Your task to perform on an android device: Set the phone to "Do not disturb". Image 0: 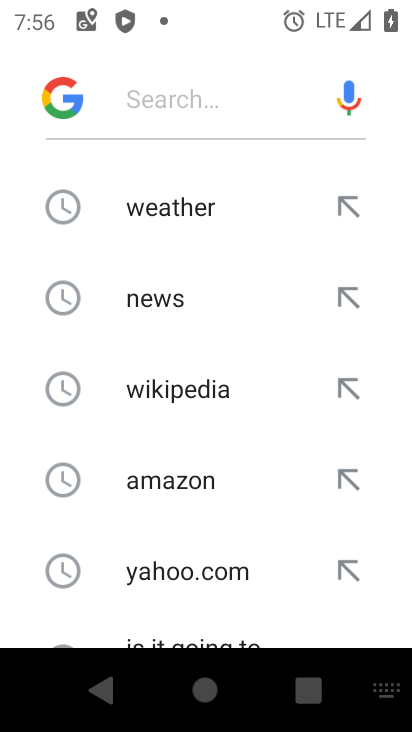
Step 0: press home button
Your task to perform on an android device: Set the phone to "Do not disturb". Image 1: 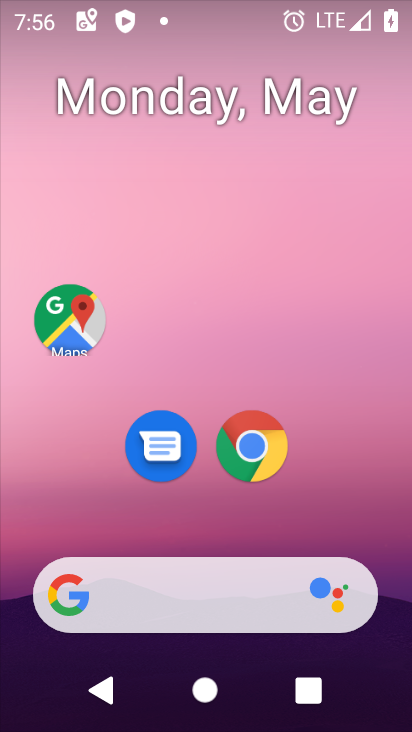
Step 1: drag from (333, 514) to (265, 108)
Your task to perform on an android device: Set the phone to "Do not disturb". Image 2: 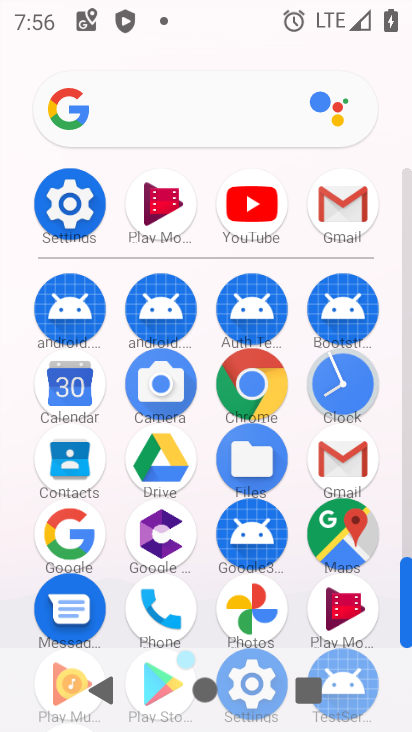
Step 2: click (74, 197)
Your task to perform on an android device: Set the phone to "Do not disturb". Image 3: 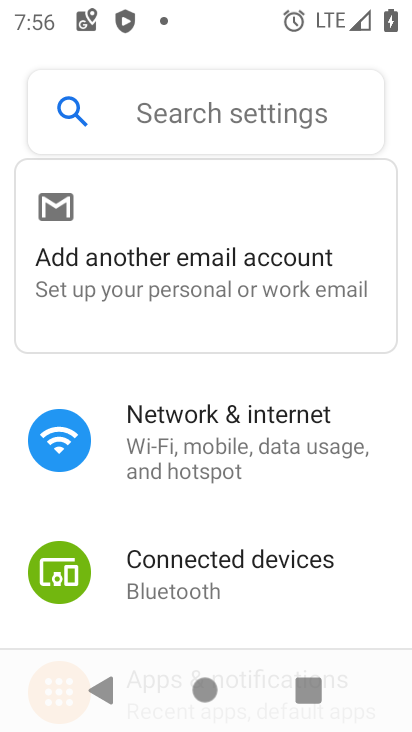
Step 3: drag from (219, 513) to (192, 157)
Your task to perform on an android device: Set the phone to "Do not disturb". Image 4: 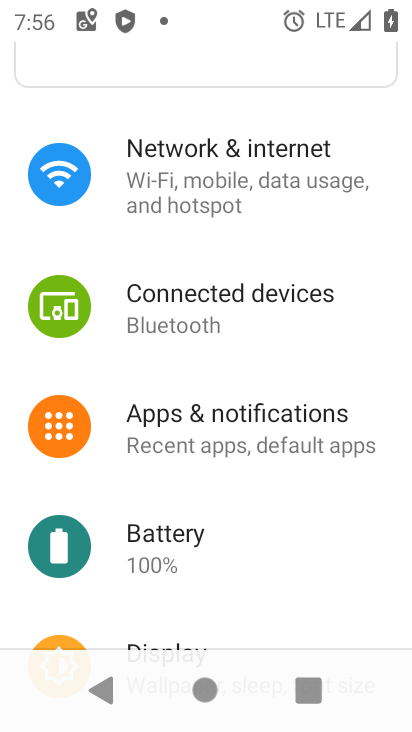
Step 4: drag from (237, 521) to (191, 263)
Your task to perform on an android device: Set the phone to "Do not disturb". Image 5: 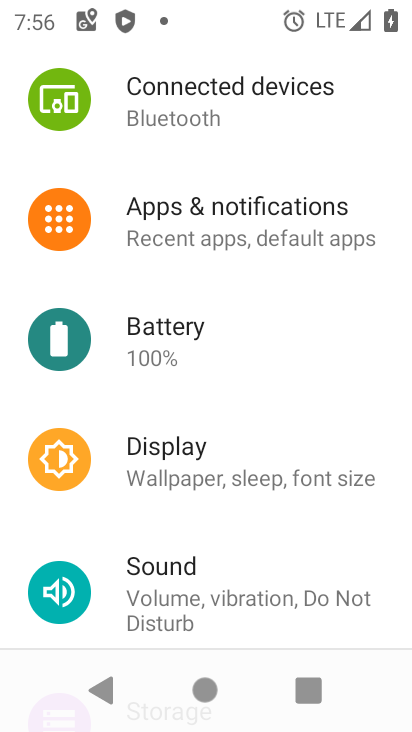
Step 5: click (164, 599)
Your task to perform on an android device: Set the phone to "Do not disturb". Image 6: 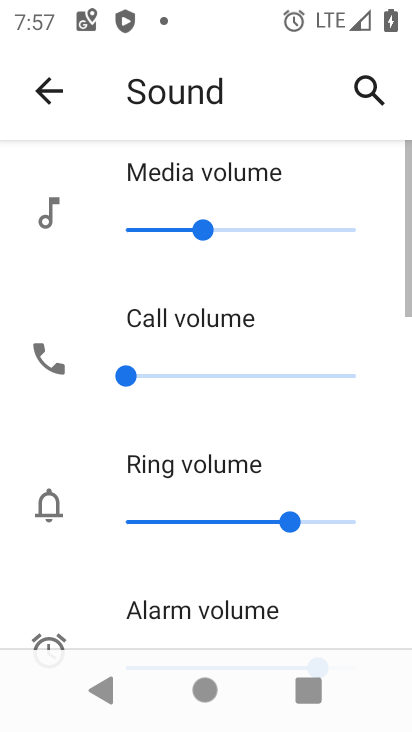
Step 6: drag from (236, 506) to (211, 272)
Your task to perform on an android device: Set the phone to "Do not disturb". Image 7: 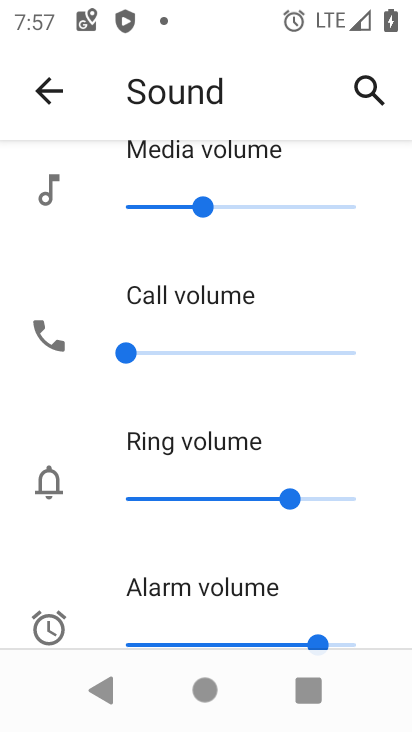
Step 7: drag from (322, 412) to (301, 144)
Your task to perform on an android device: Set the phone to "Do not disturb". Image 8: 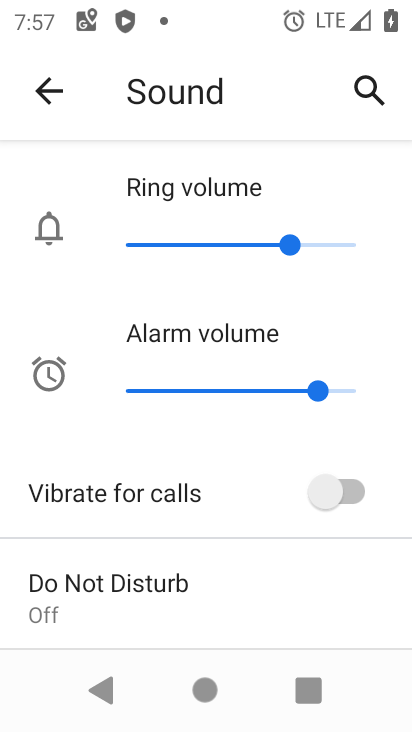
Step 8: click (121, 574)
Your task to perform on an android device: Set the phone to "Do not disturb". Image 9: 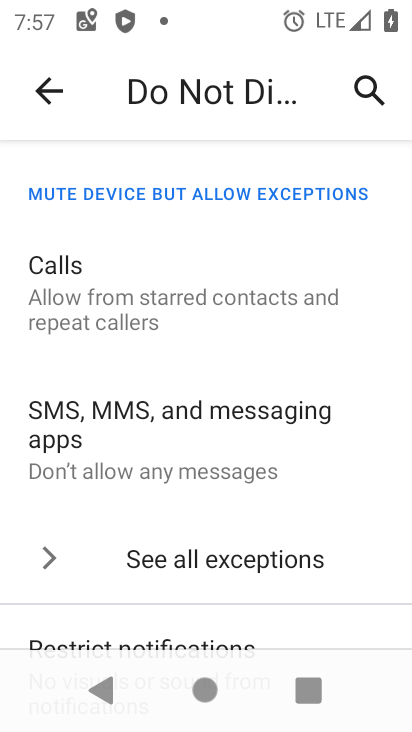
Step 9: drag from (207, 509) to (157, 180)
Your task to perform on an android device: Set the phone to "Do not disturb". Image 10: 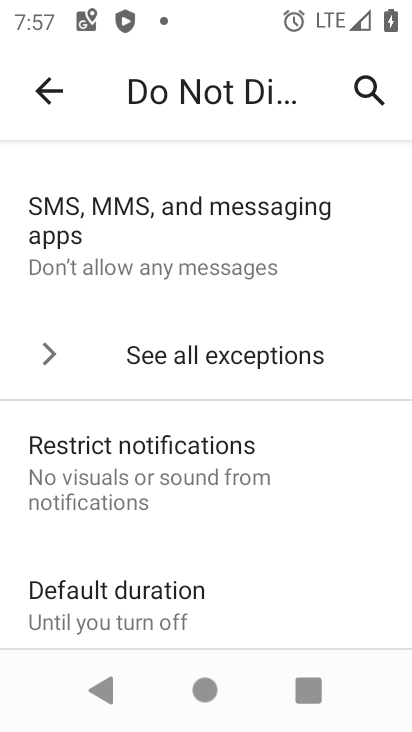
Step 10: drag from (214, 520) to (166, 237)
Your task to perform on an android device: Set the phone to "Do not disturb". Image 11: 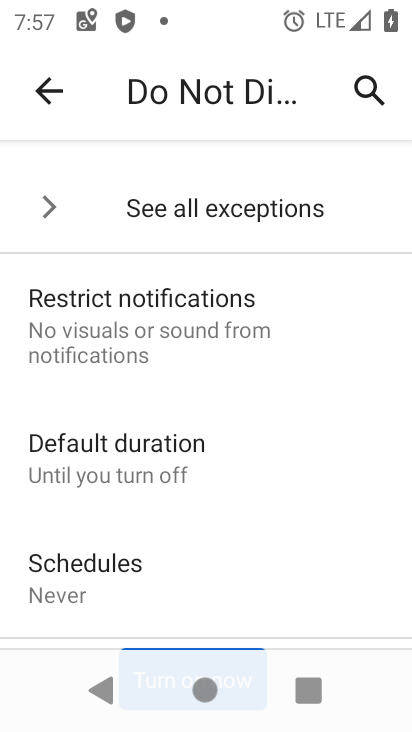
Step 11: drag from (228, 457) to (199, 229)
Your task to perform on an android device: Set the phone to "Do not disturb". Image 12: 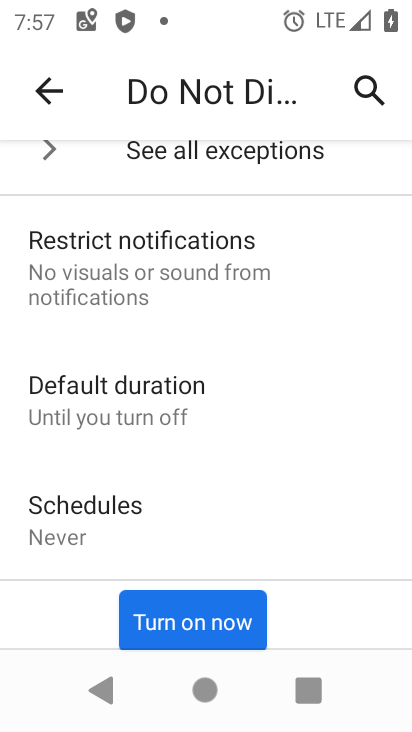
Step 12: click (186, 618)
Your task to perform on an android device: Set the phone to "Do not disturb". Image 13: 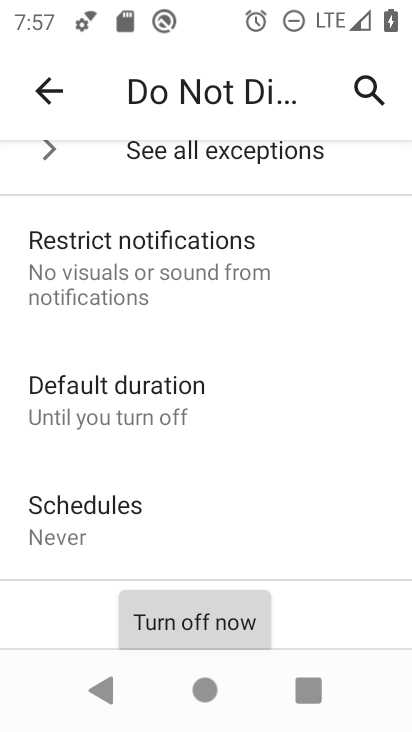
Step 13: task complete